Your task to perform on an android device: turn off wifi Image 0: 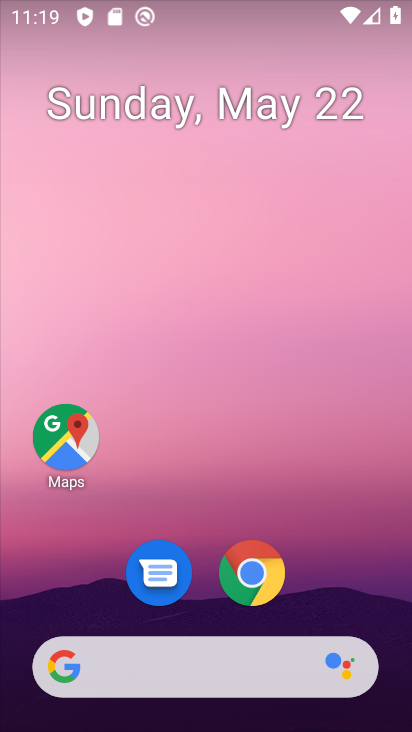
Step 0: drag from (192, 607) to (240, 12)
Your task to perform on an android device: turn off wifi Image 1: 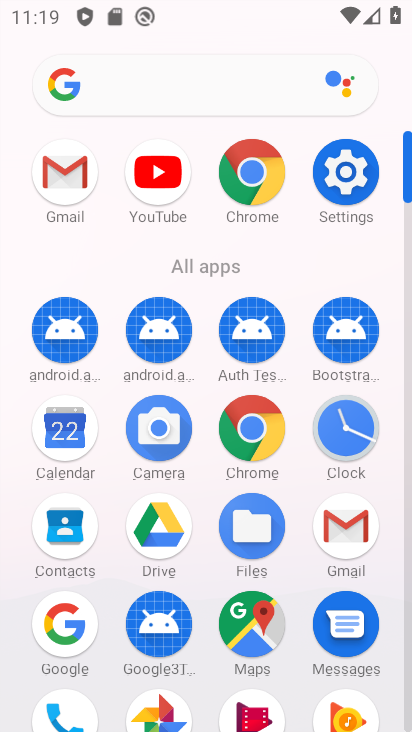
Step 1: click (361, 157)
Your task to perform on an android device: turn off wifi Image 2: 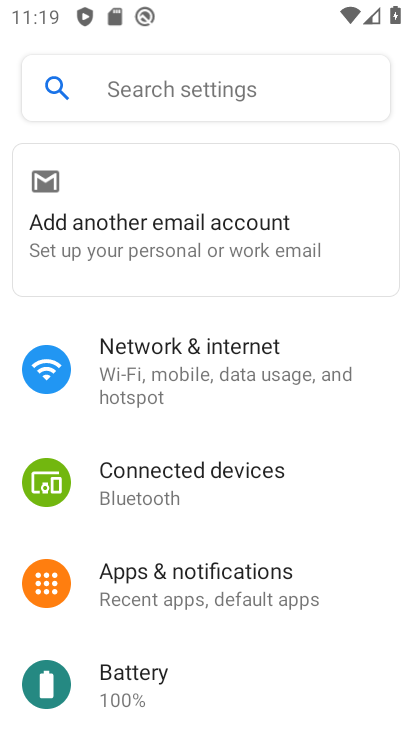
Step 2: click (158, 387)
Your task to perform on an android device: turn off wifi Image 3: 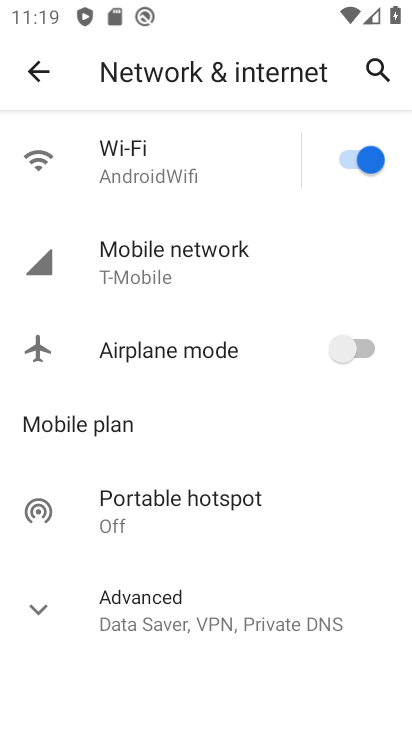
Step 3: click (337, 162)
Your task to perform on an android device: turn off wifi Image 4: 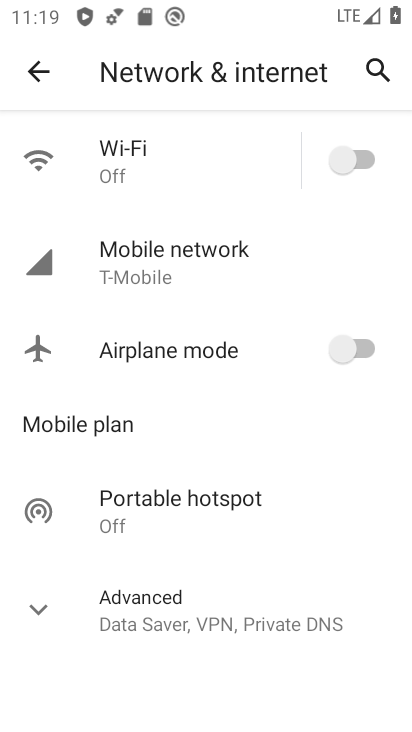
Step 4: task complete